Your task to perform on an android device: create a new album in the google photos Image 0: 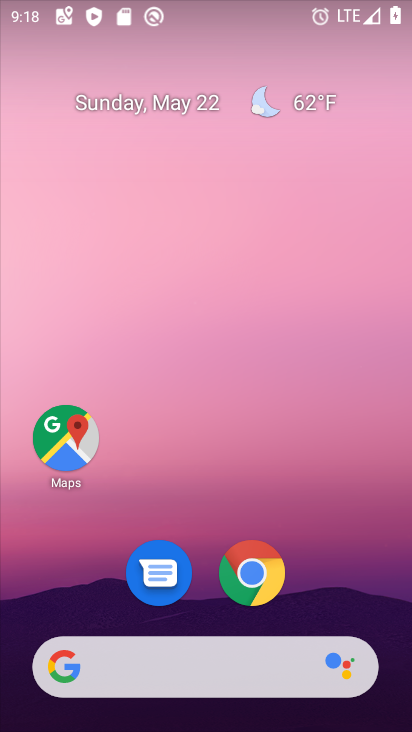
Step 0: drag from (336, 671) to (410, 103)
Your task to perform on an android device: create a new album in the google photos Image 1: 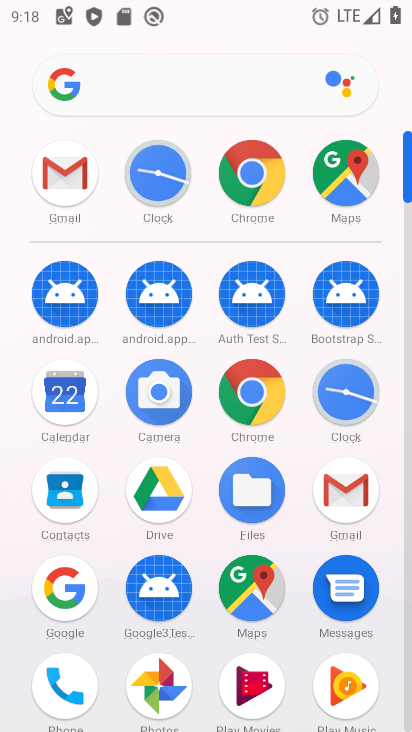
Step 1: click (161, 686)
Your task to perform on an android device: create a new album in the google photos Image 2: 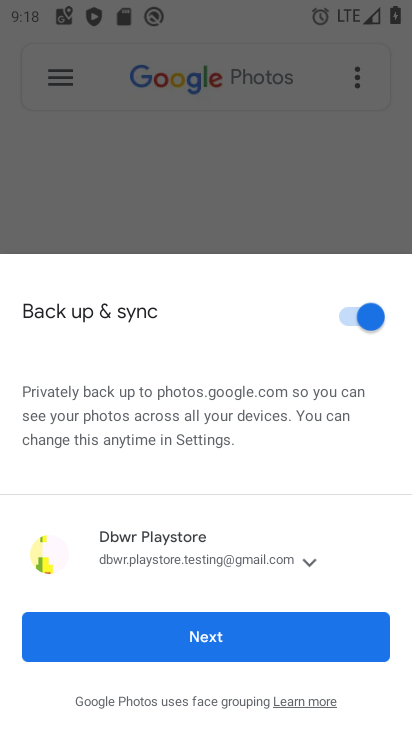
Step 2: click (201, 627)
Your task to perform on an android device: create a new album in the google photos Image 3: 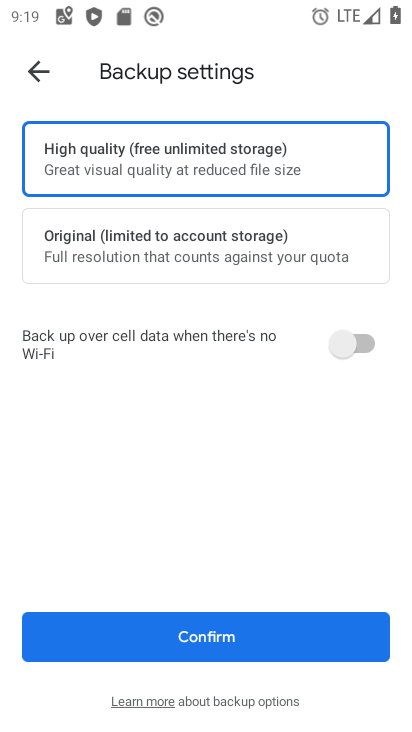
Step 3: press back button
Your task to perform on an android device: create a new album in the google photos Image 4: 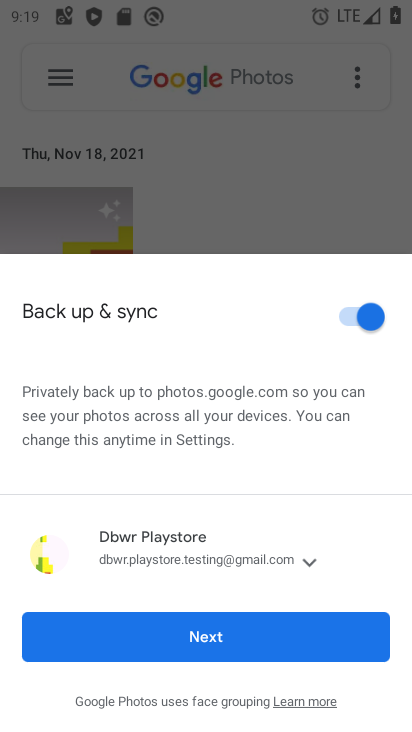
Step 4: click (235, 649)
Your task to perform on an android device: create a new album in the google photos Image 5: 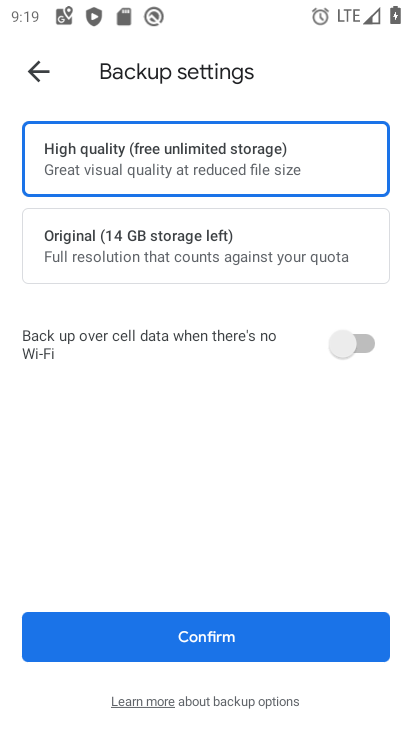
Step 5: click (267, 627)
Your task to perform on an android device: create a new album in the google photos Image 6: 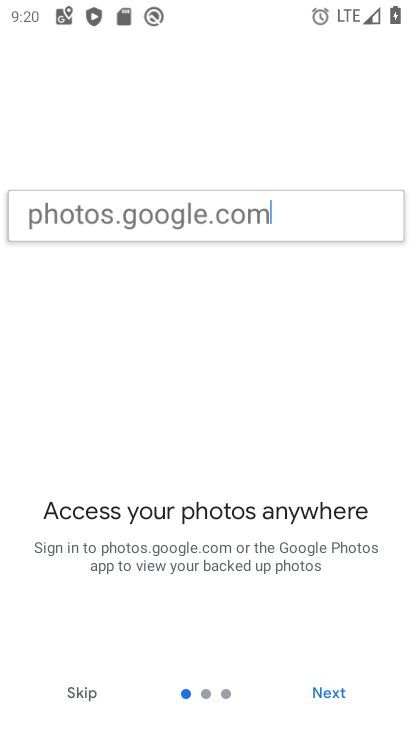
Step 6: click (336, 703)
Your task to perform on an android device: create a new album in the google photos Image 7: 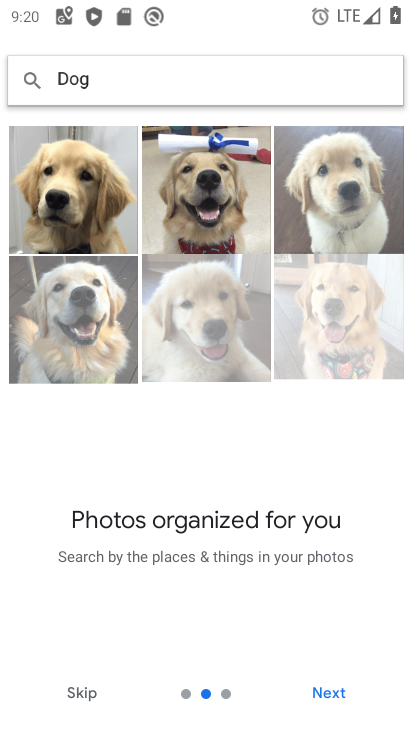
Step 7: click (323, 693)
Your task to perform on an android device: create a new album in the google photos Image 8: 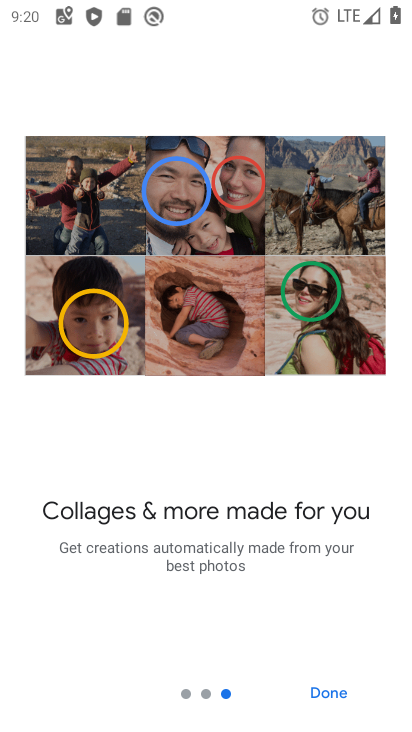
Step 8: click (323, 693)
Your task to perform on an android device: create a new album in the google photos Image 9: 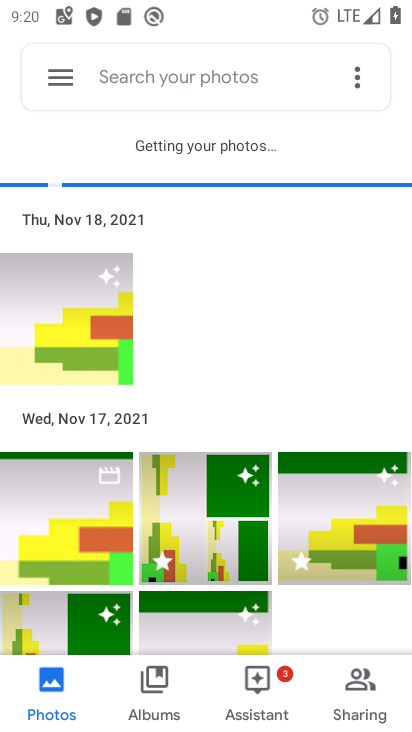
Step 9: click (126, 682)
Your task to perform on an android device: create a new album in the google photos Image 10: 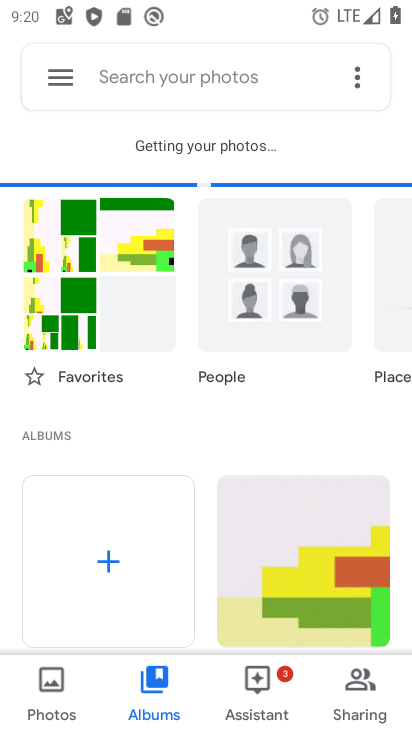
Step 10: click (125, 564)
Your task to perform on an android device: create a new album in the google photos Image 11: 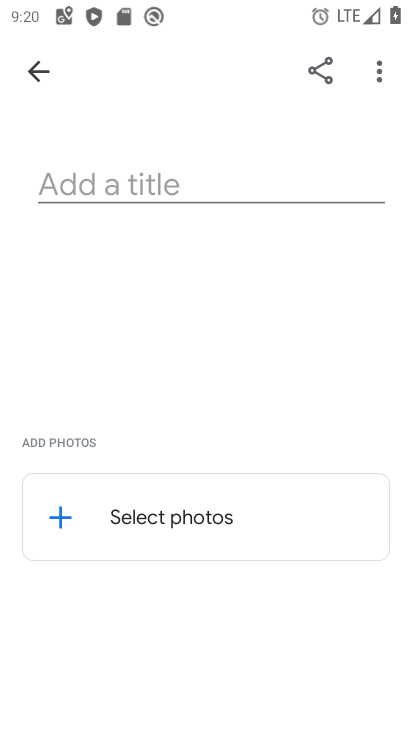
Step 11: click (206, 180)
Your task to perform on an android device: create a new album in the google photos Image 12: 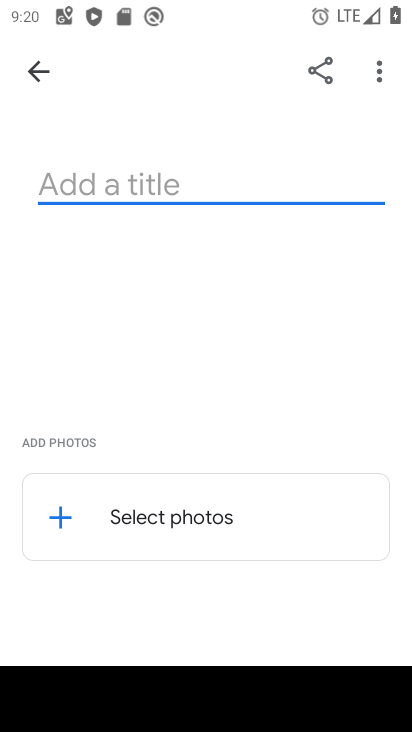
Step 12: type "jhgjhgj"
Your task to perform on an android device: create a new album in the google photos Image 13: 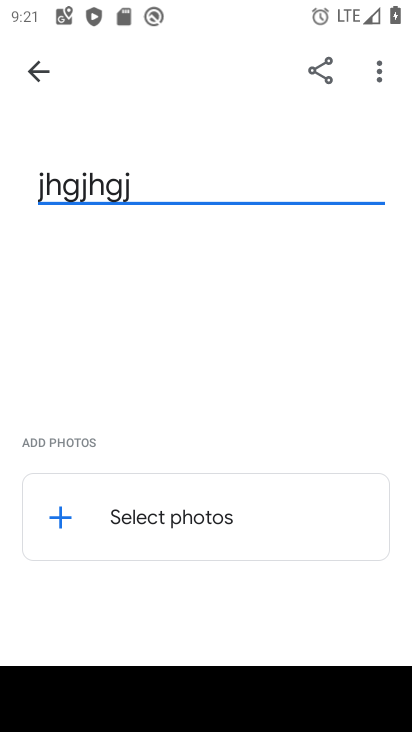
Step 13: click (66, 520)
Your task to perform on an android device: create a new album in the google photos Image 14: 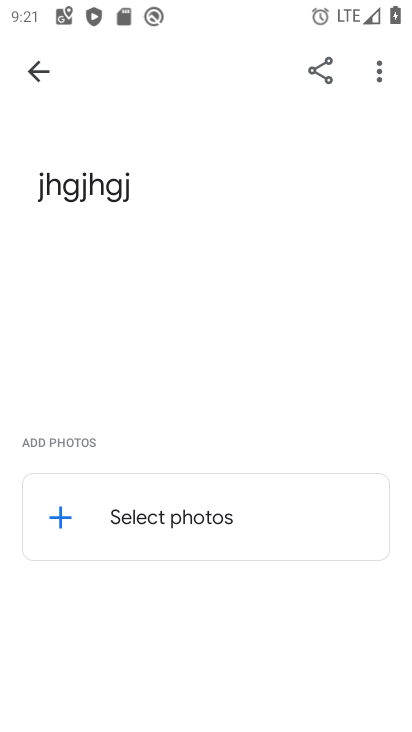
Step 14: click (65, 519)
Your task to perform on an android device: create a new album in the google photos Image 15: 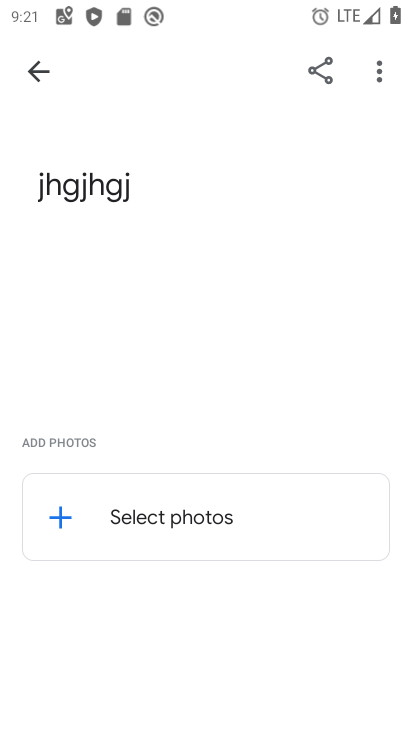
Step 15: click (65, 514)
Your task to perform on an android device: create a new album in the google photos Image 16: 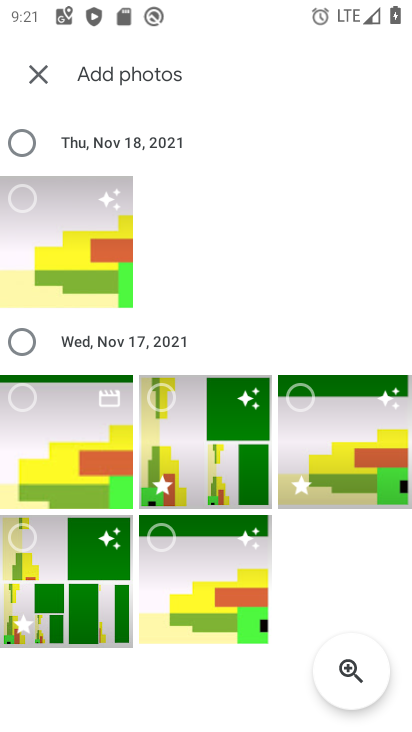
Step 16: click (48, 216)
Your task to perform on an android device: create a new album in the google photos Image 17: 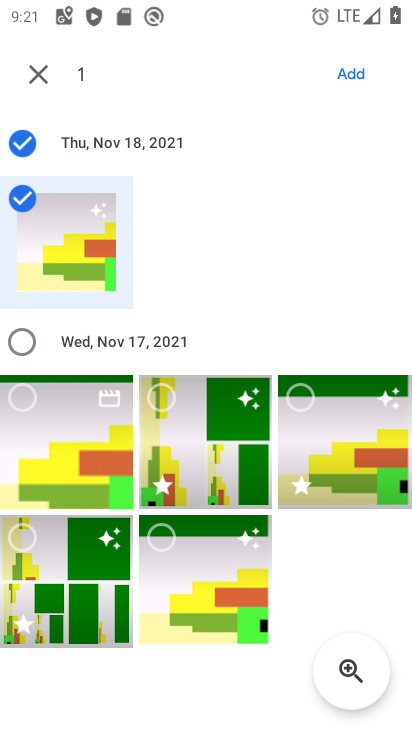
Step 17: click (331, 63)
Your task to perform on an android device: create a new album in the google photos Image 18: 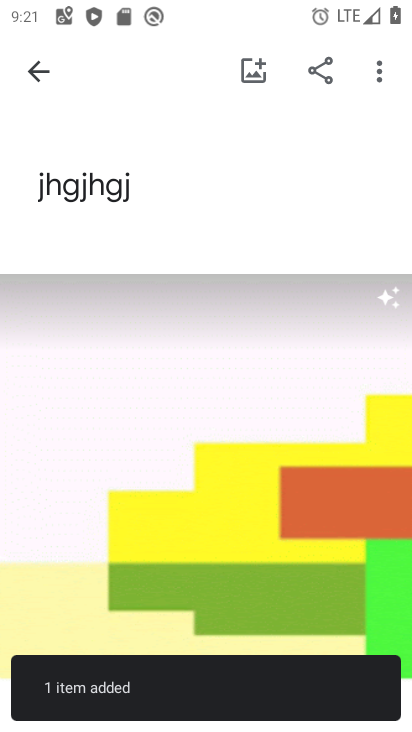
Step 18: task complete